Your task to perform on an android device: turn pop-ups on in chrome Image 0: 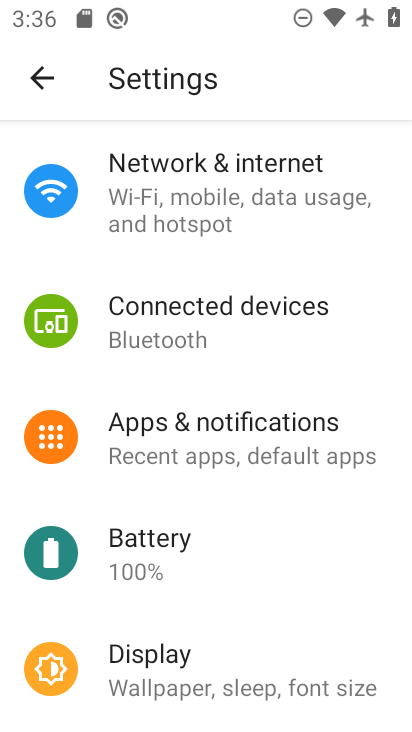
Step 0: press home button
Your task to perform on an android device: turn pop-ups on in chrome Image 1: 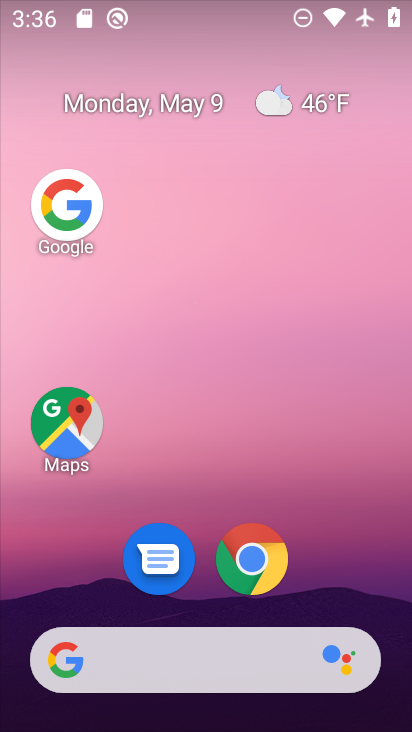
Step 1: click (277, 555)
Your task to perform on an android device: turn pop-ups on in chrome Image 2: 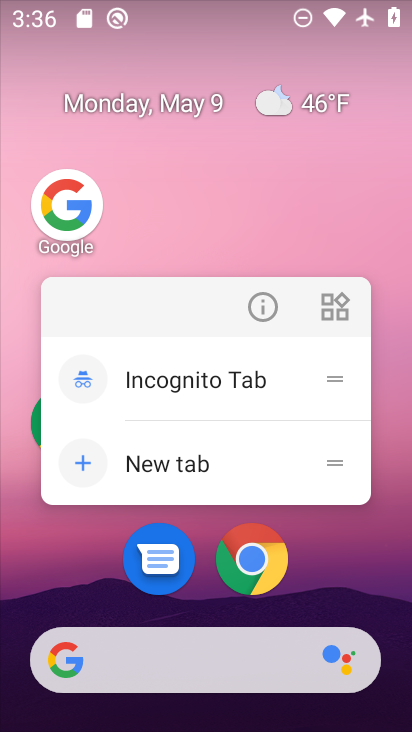
Step 2: click (277, 555)
Your task to perform on an android device: turn pop-ups on in chrome Image 3: 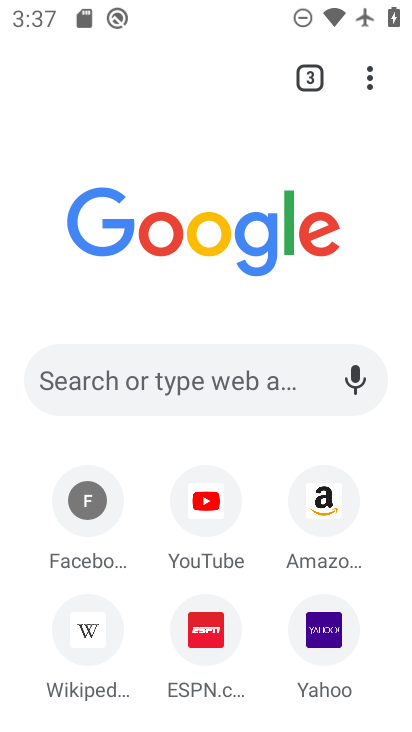
Step 3: click (375, 68)
Your task to perform on an android device: turn pop-ups on in chrome Image 4: 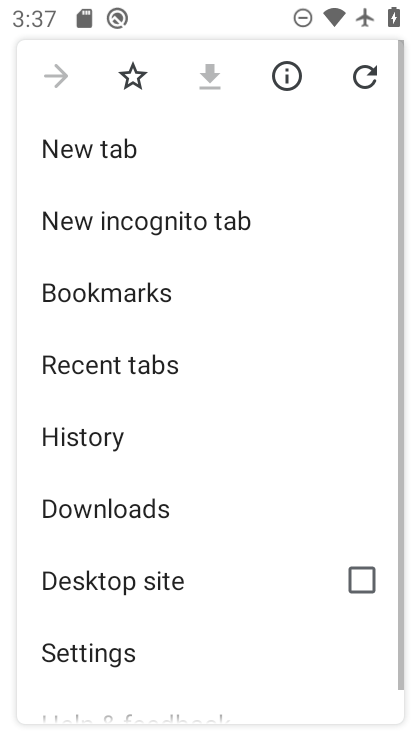
Step 4: drag from (196, 592) to (183, 150)
Your task to perform on an android device: turn pop-ups on in chrome Image 5: 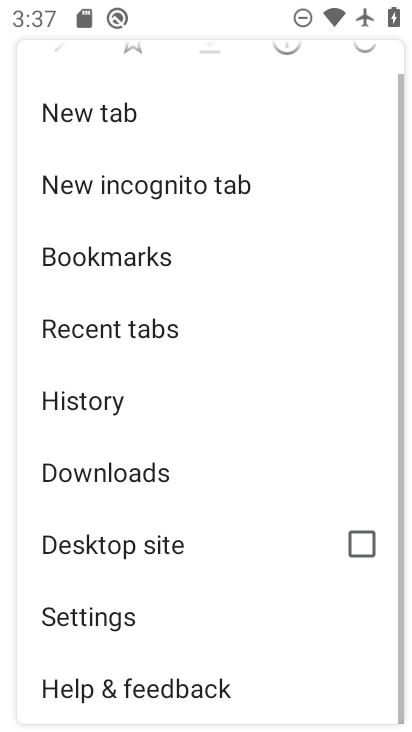
Step 5: click (130, 603)
Your task to perform on an android device: turn pop-ups on in chrome Image 6: 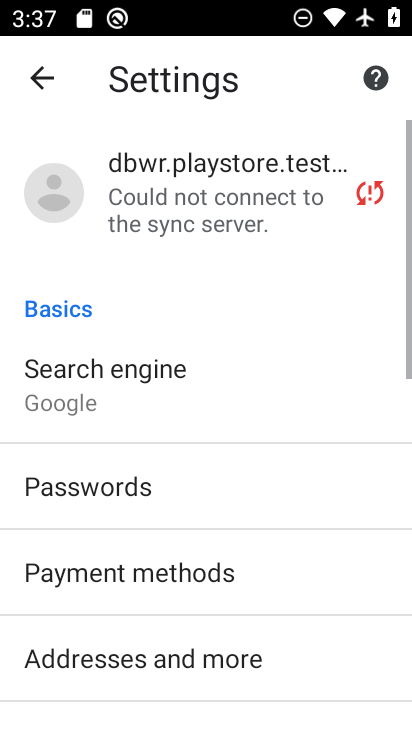
Step 6: drag from (135, 590) to (190, 74)
Your task to perform on an android device: turn pop-ups on in chrome Image 7: 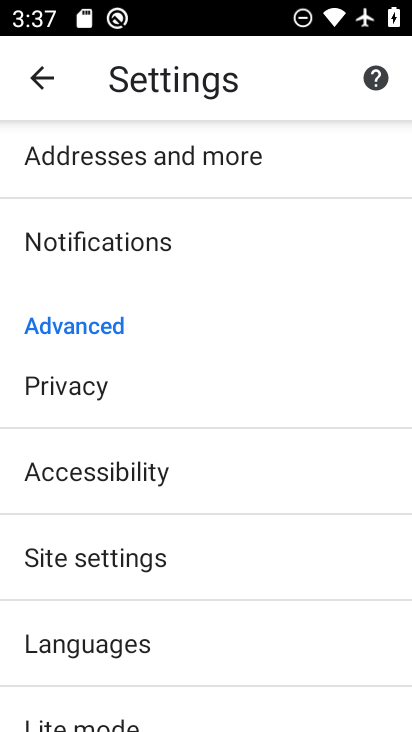
Step 7: drag from (223, 573) to (230, 239)
Your task to perform on an android device: turn pop-ups on in chrome Image 8: 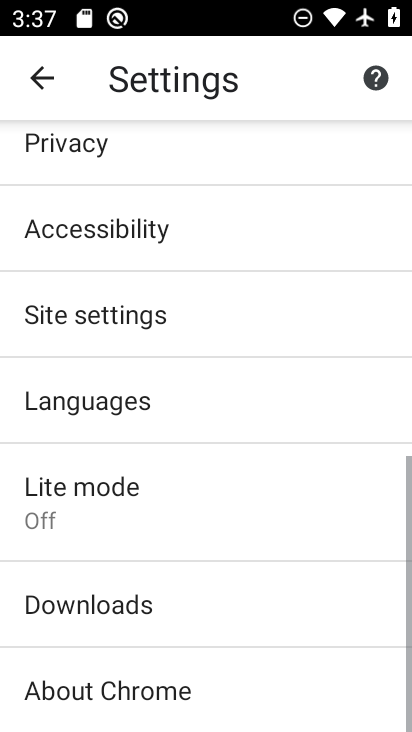
Step 8: click (244, 331)
Your task to perform on an android device: turn pop-ups on in chrome Image 9: 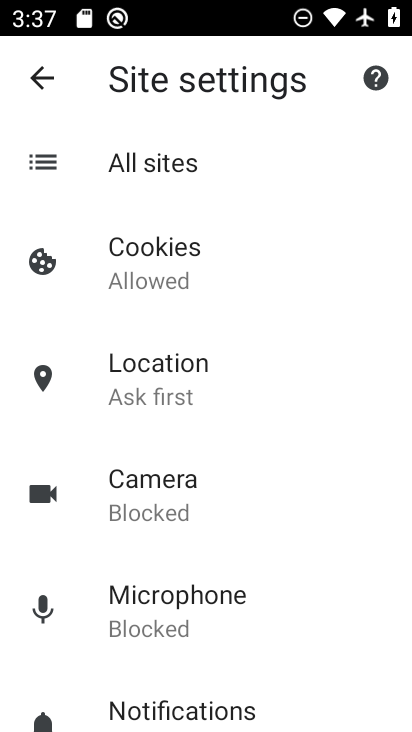
Step 9: drag from (266, 594) to (236, 219)
Your task to perform on an android device: turn pop-ups on in chrome Image 10: 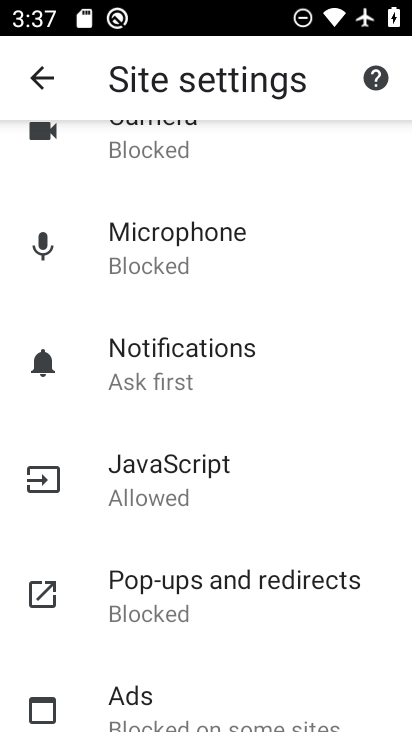
Step 10: drag from (252, 665) to (239, 286)
Your task to perform on an android device: turn pop-ups on in chrome Image 11: 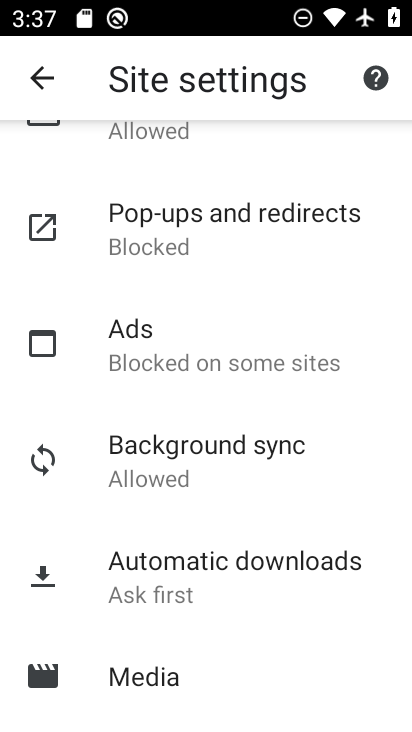
Step 11: click (256, 213)
Your task to perform on an android device: turn pop-ups on in chrome Image 12: 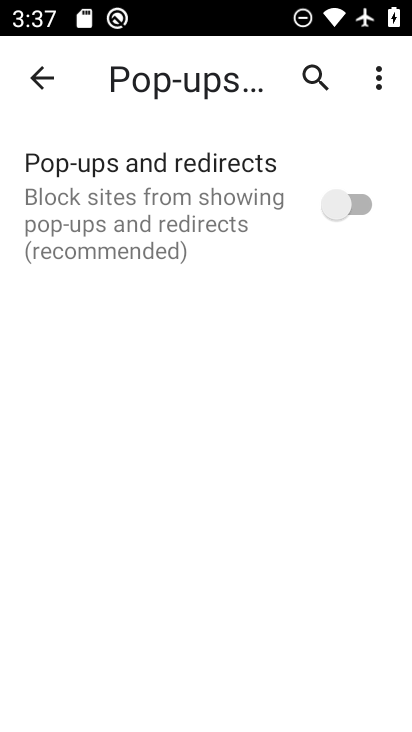
Step 12: click (350, 193)
Your task to perform on an android device: turn pop-ups on in chrome Image 13: 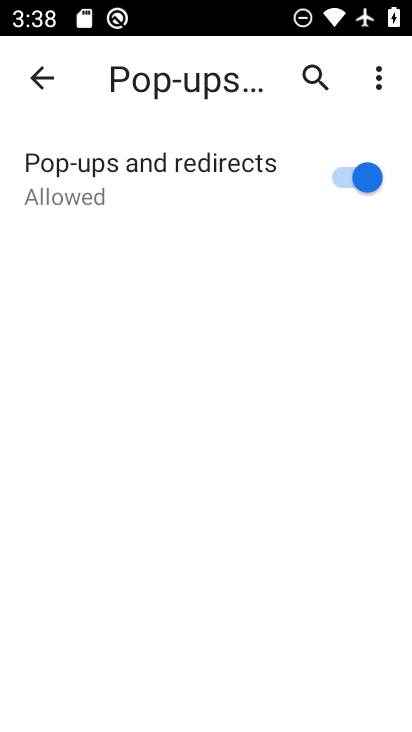
Step 13: task complete